Your task to perform on an android device: What's the weather today? Image 0: 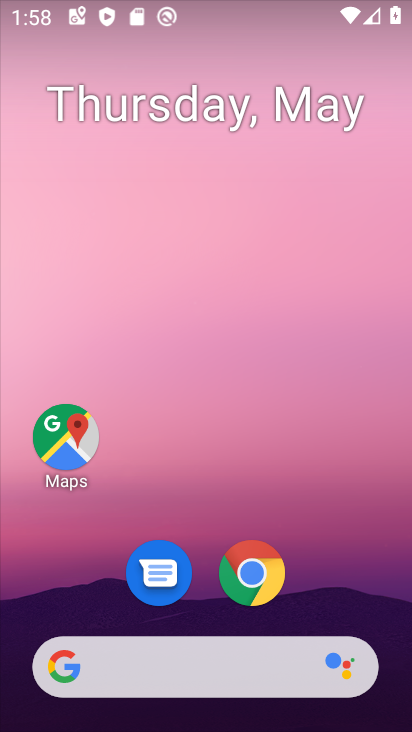
Step 0: drag from (368, 619) to (242, 104)
Your task to perform on an android device: What's the weather today? Image 1: 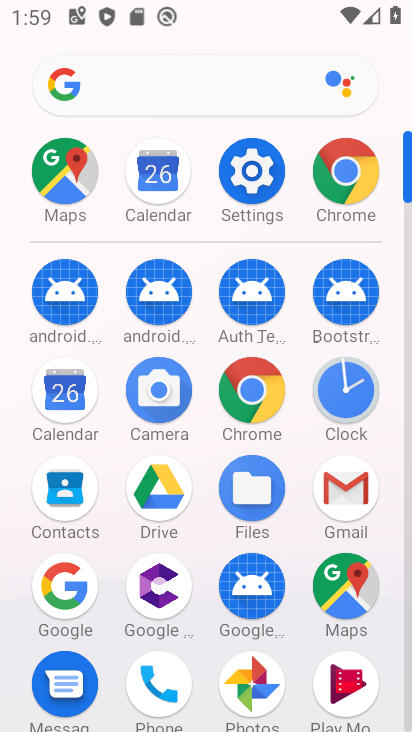
Step 1: click (351, 181)
Your task to perform on an android device: What's the weather today? Image 2: 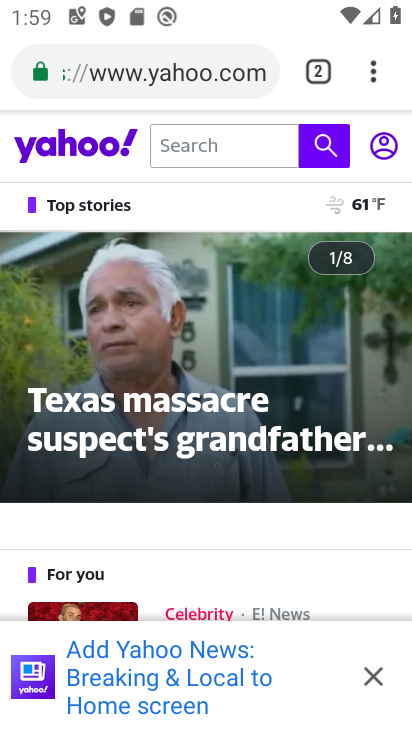
Step 2: click (250, 70)
Your task to perform on an android device: What's the weather today? Image 3: 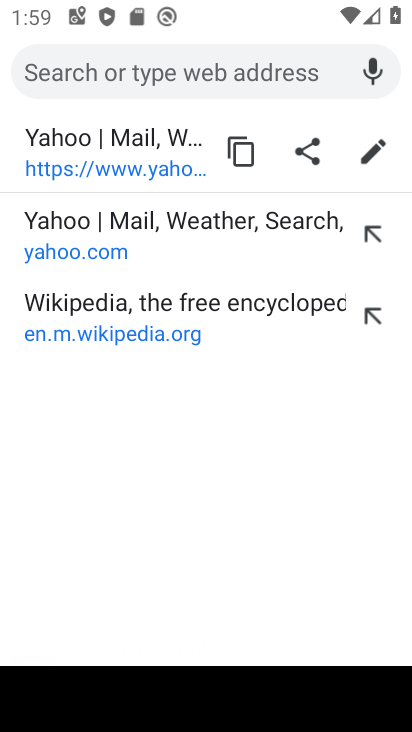
Step 3: type "What's the weather today?"
Your task to perform on an android device: What's the weather today? Image 4: 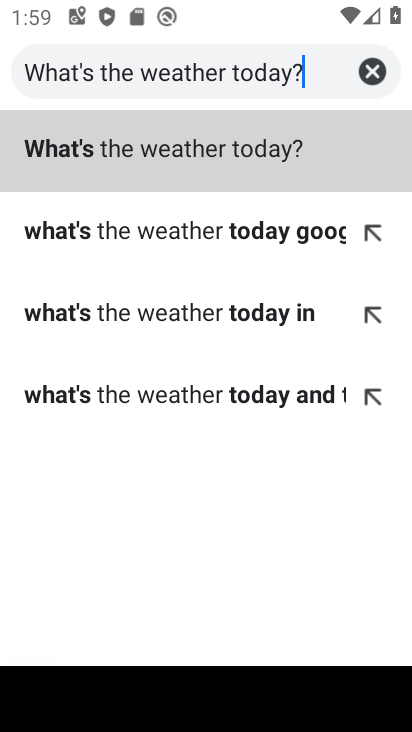
Step 4: click (232, 148)
Your task to perform on an android device: What's the weather today? Image 5: 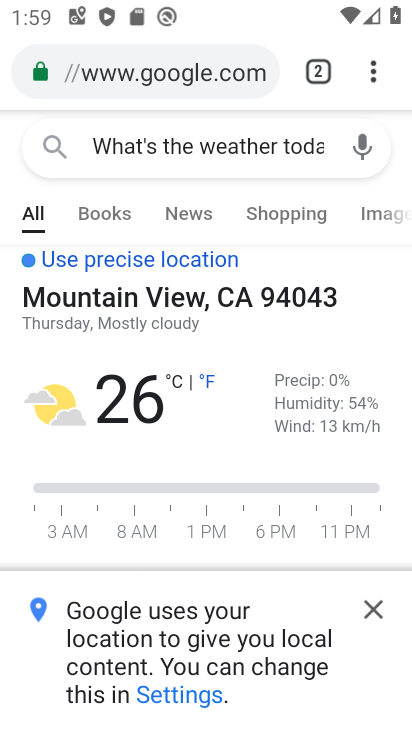
Step 5: click (377, 610)
Your task to perform on an android device: What's the weather today? Image 6: 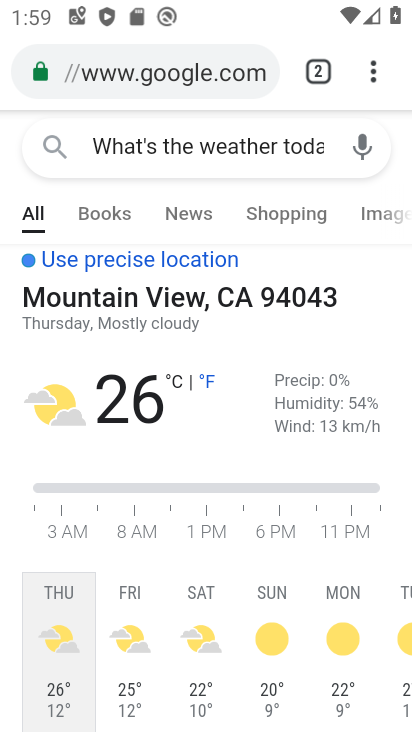
Step 6: task complete